Your task to perform on an android device: allow cookies in the chrome app Image 0: 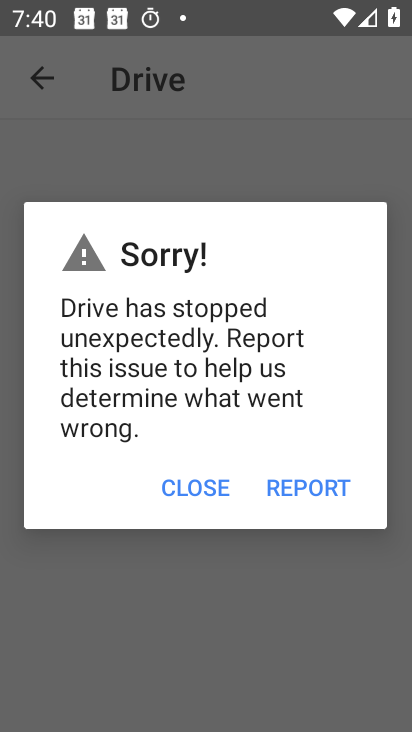
Step 0: press home button
Your task to perform on an android device: allow cookies in the chrome app Image 1: 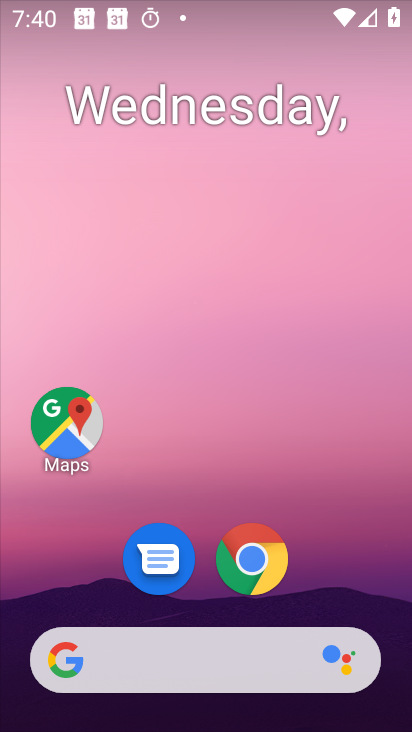
Step 1: click (254, 562)
Your task to perform on an android device: allow cookies in the chrome app Image 2: 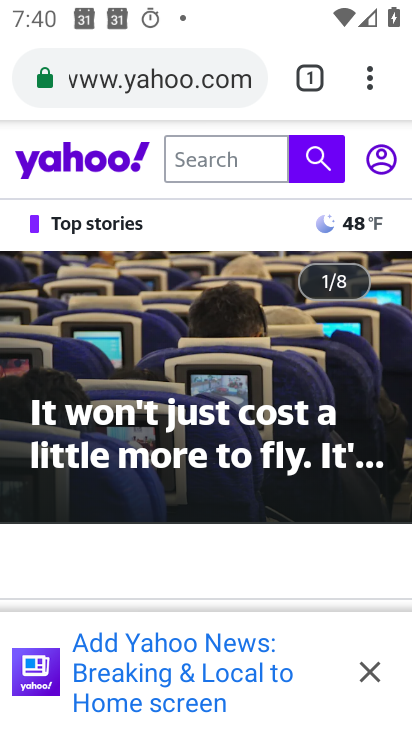
Step 2: drag from (374, 77) to (102, 622)
Your task to perform on an android device: allow cookies in the chrome app Image 3: 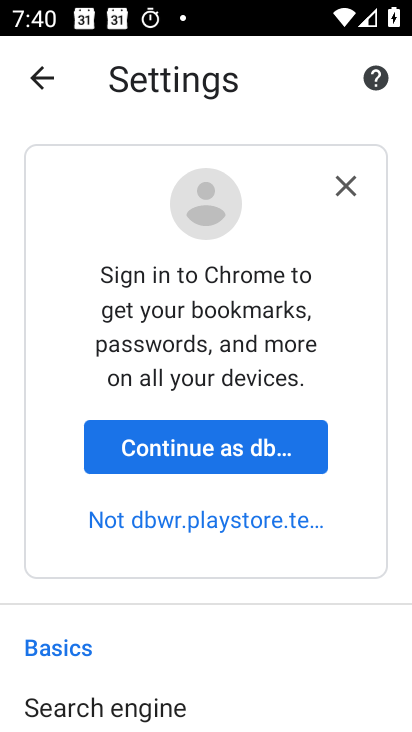
Step 3: drag from (218, 631) to (173, 159)
Your task to perform on an android device: allow cookies in the chrome app Image 4: 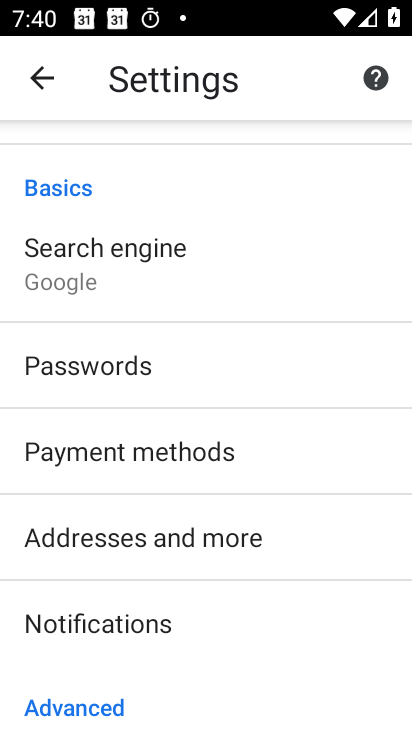
Step 4: drag from (198, 515) to (155, 102)
Your task to perform on an android device: allow cookies in the chrome app Image 5: 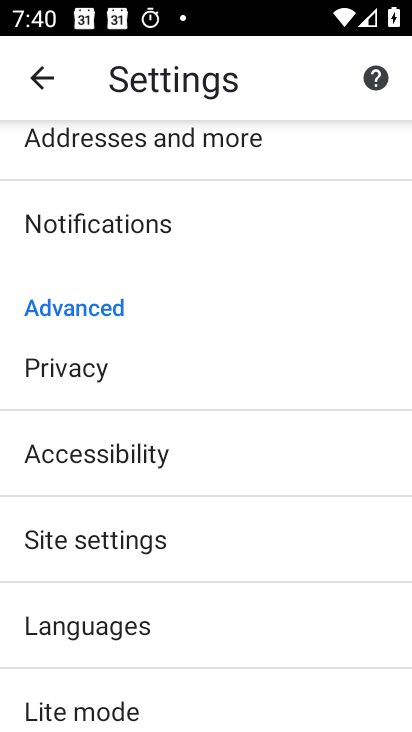
Step 5: drag from (178, 521) to (161, 227)
Your task to perform on an android device: allow cookies in the chrome app Image 6: 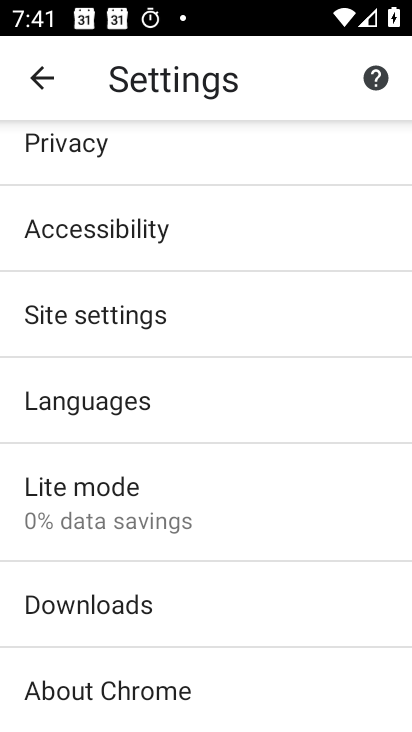
Step 6: click (96, 312)
Your task to perform on an android device: allow cookies in the chrome app Image 7: 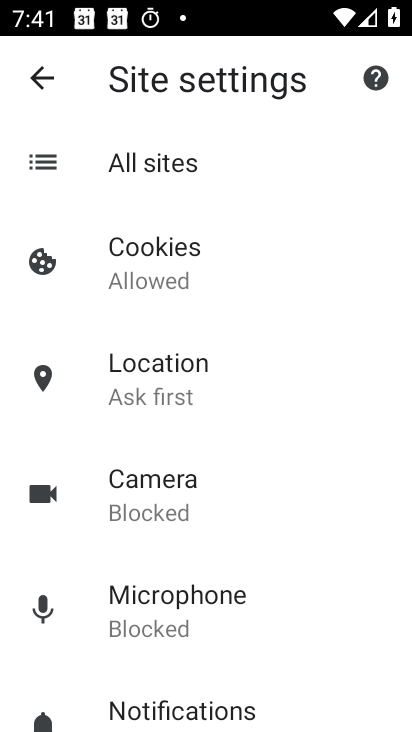
Step 7: click (148, 271)
Your task to perform on an android device: allow cookies in the chrome app Image 8: 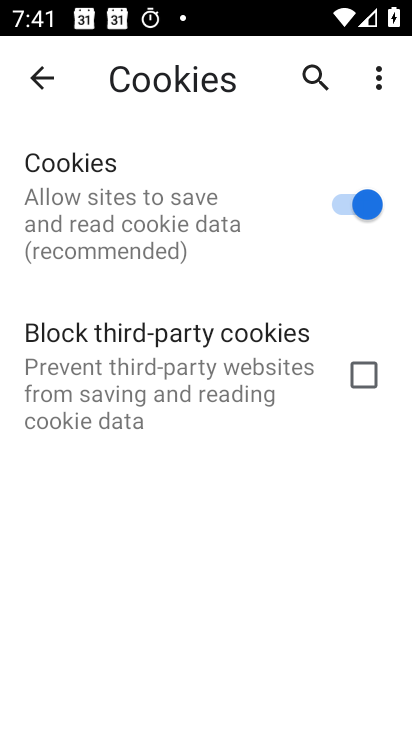
Step 8: task complete